Your task to perform on an android device: Add razer nari to the cart on target, then select checkout. Image 0: 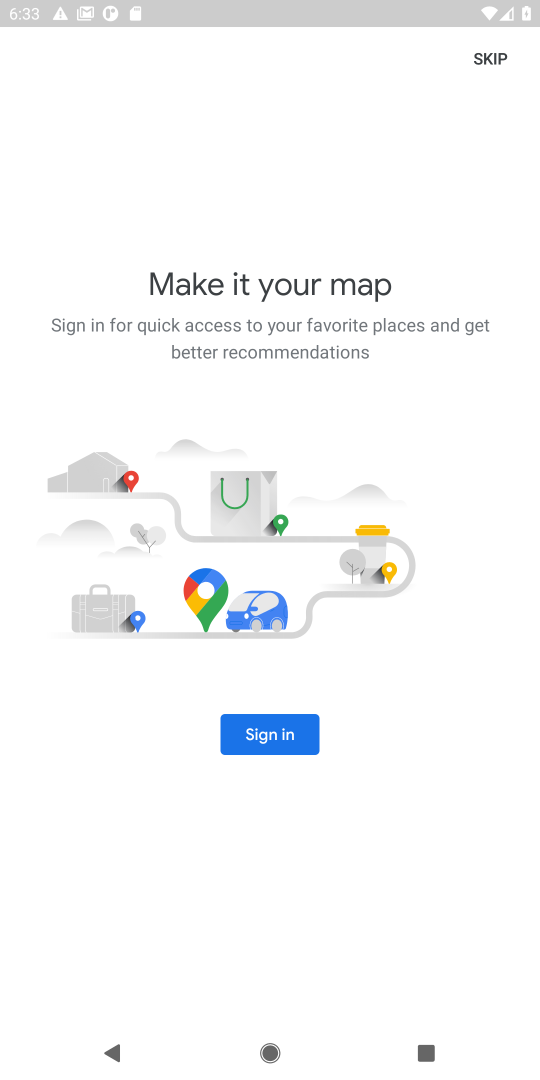
Step 0: press home button
Your task to perform on an android device: Add razer nari to the cart on target, then select checkout. Image 1: 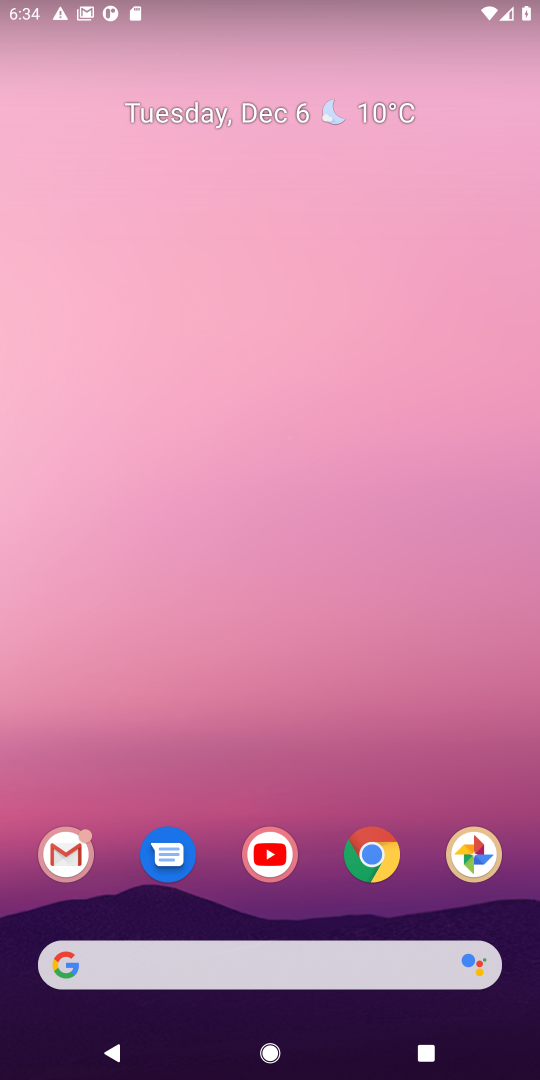
Step 1: click (384, 839)
Your task to perform on an android device: Add razer nari to the cart on target, then select checkout. Image 2: 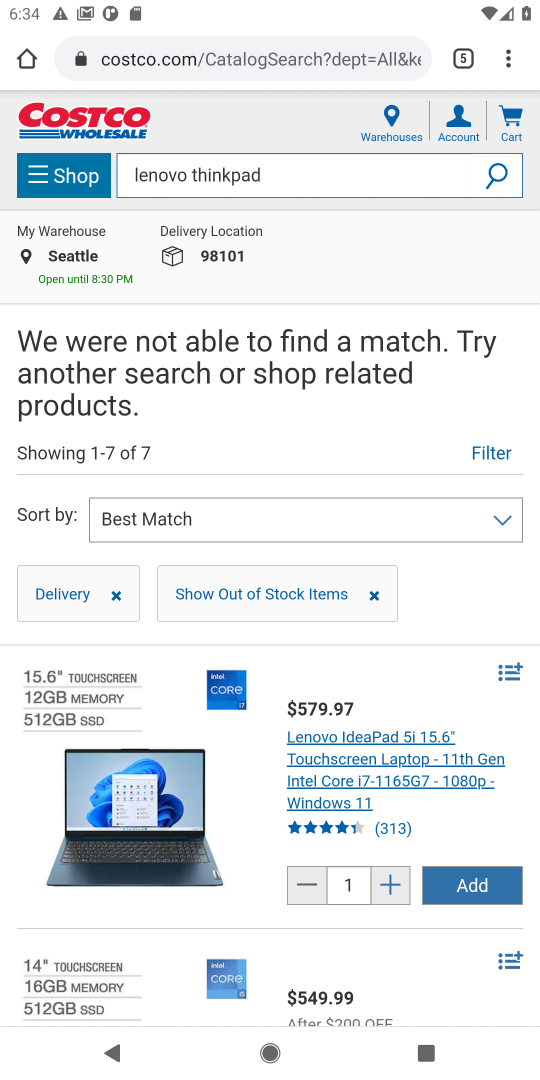
Step 2: click (470, 50)
Your task to perform on an android device: Add razer nari to the cart on target, then select checkout. Image 3: 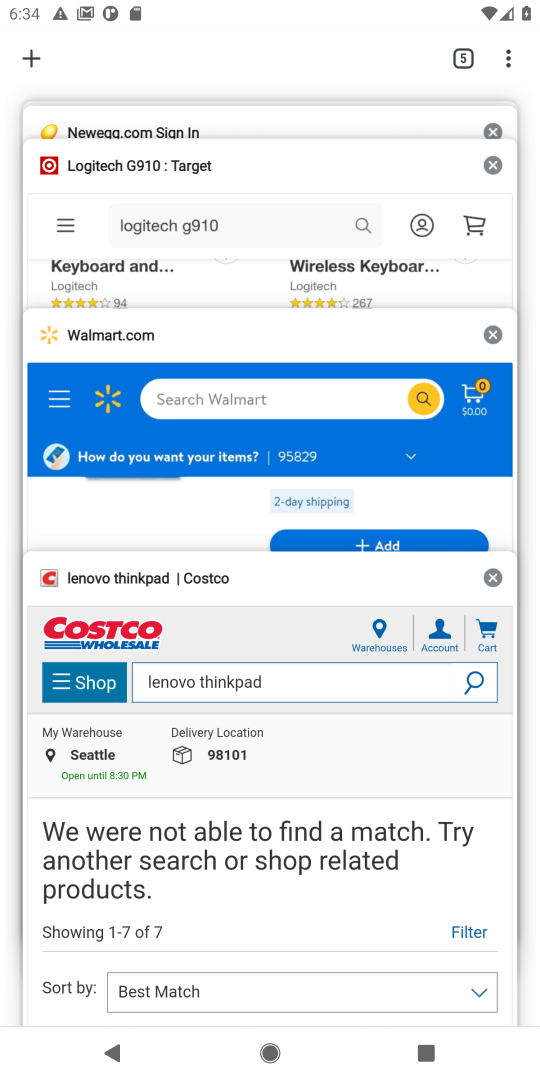
Step 3: click (303, 179)
Your task to perform on an android device: Add razer nari to the cart on target, then select checkout. Image 4: 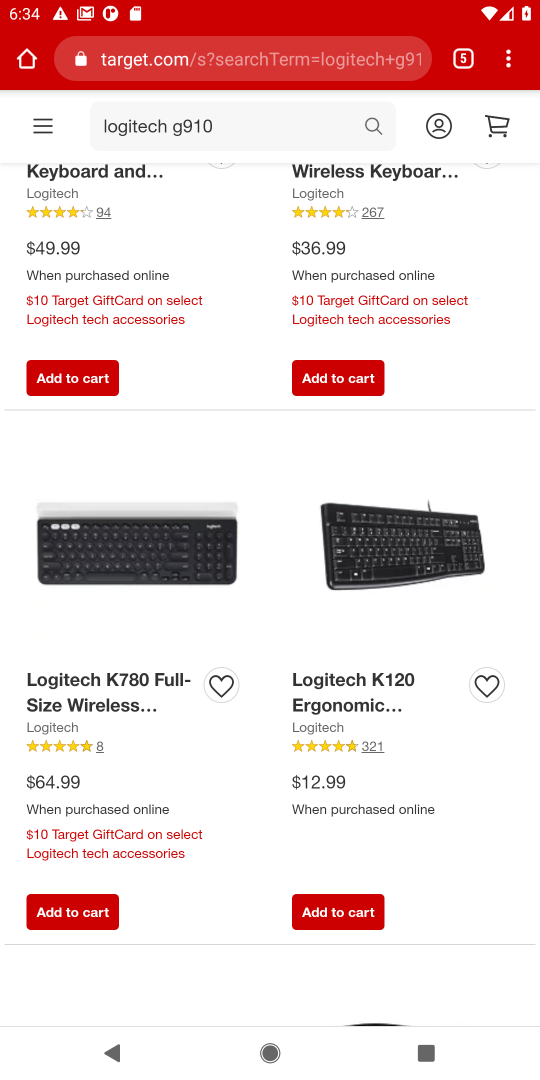
Step 4: click (278, 124)
Your task to perform on an android device: Add razer nari to the cart on target, then select checkout. Image 5: 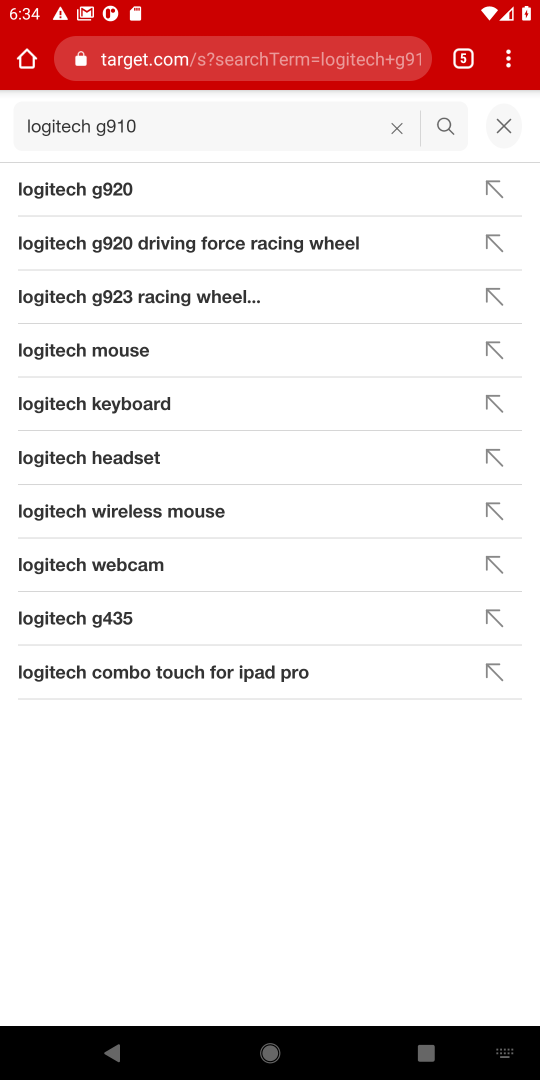
Step 5: click (393, 129)
Your task to perform on an android device: Add razer nari to the cart on target, then select checkout. Image 6: 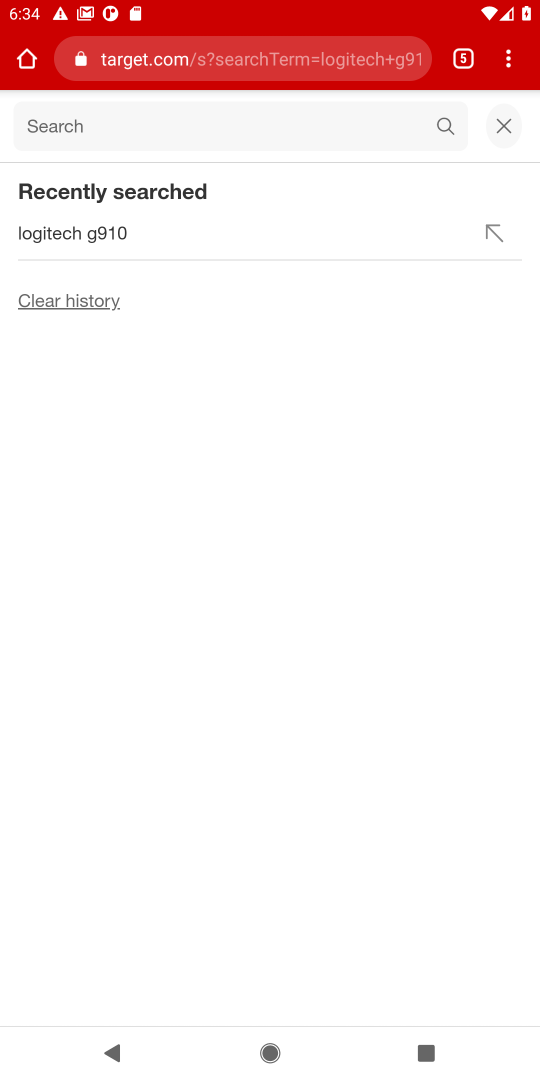
Step 6: type "razer nari"
Your task to perform on an android device: Add razer nari to the cart on target, then select checkout. Image 7: 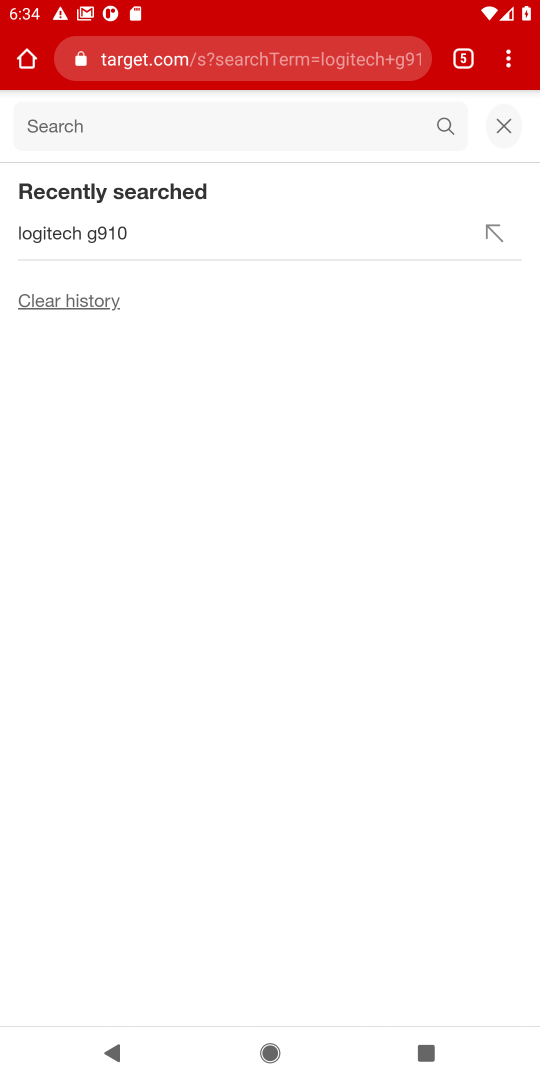
Step 7: click (112, 130)
Your task to perform on an android device: Add razer nari to the cart on target, then select checkout. Image 8: 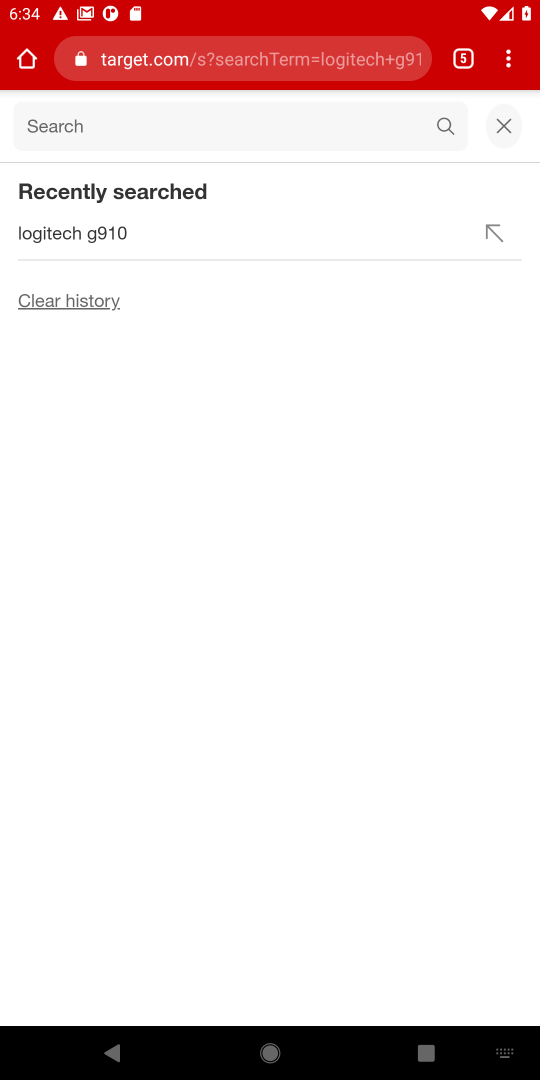
Step 8: type "razer nari"
Your task to perform on an android device: Add razer nari to the cart on target, then select checkout. Image 9: 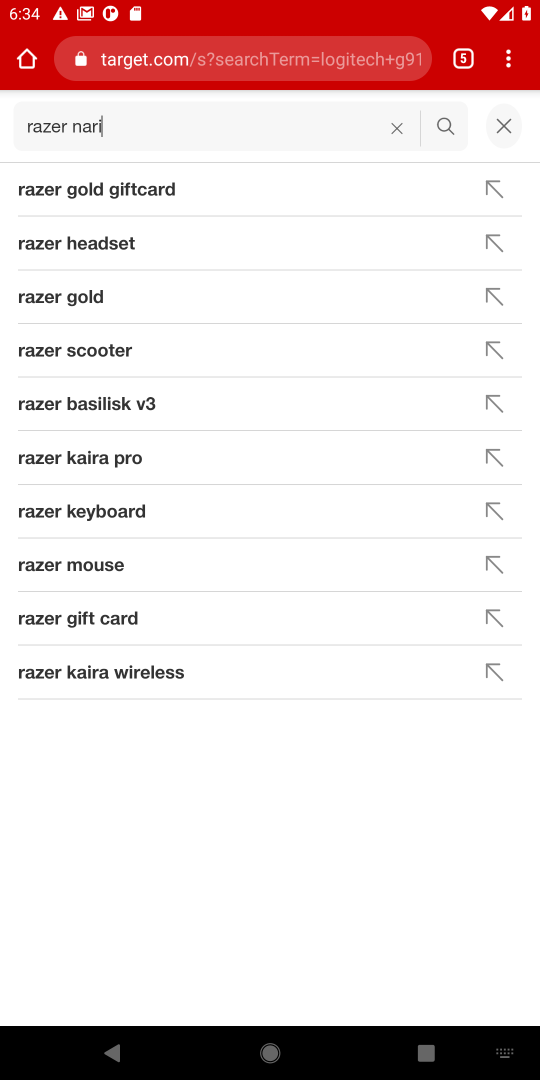
Step 9: click (436, 126)
Your task to perform on an android device: Add razer nari to the cart on target, then select checkout. Image 10: 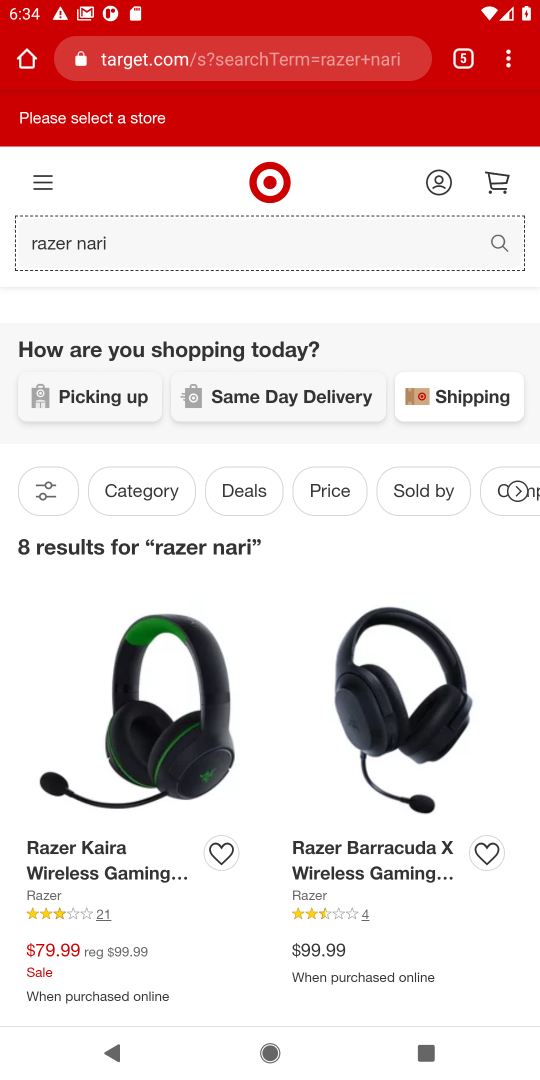
Step 10: task complete